Your task to perform on an android device: open a new tab in the chrome app Image 0: 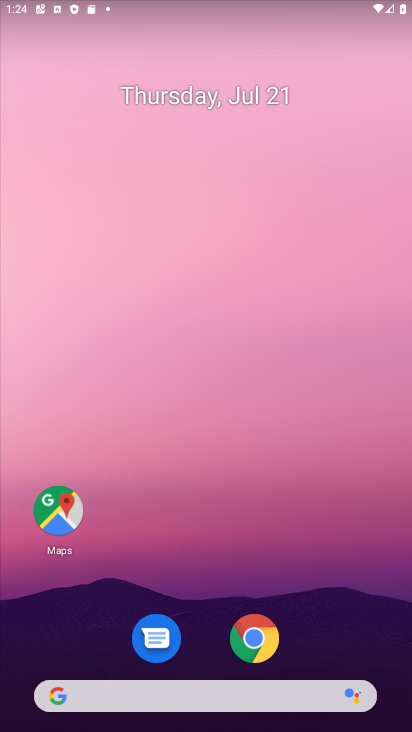
Step 0: click (235, 636)
Your task to perform on an android device: open a new tab in the chrome app Image 1: 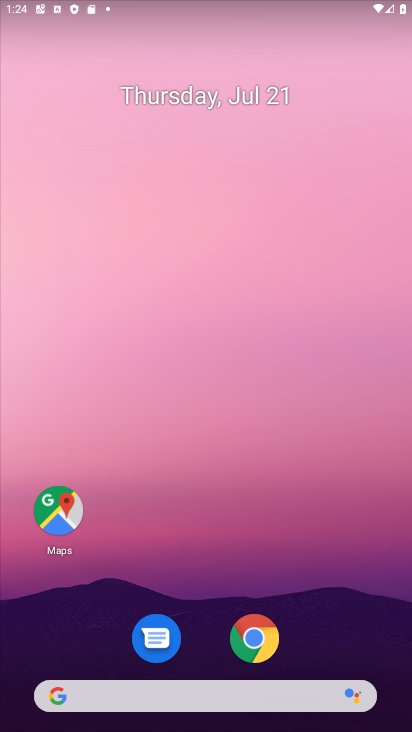
Step 1: click (235, 636)
Your task to perform on an android device: open a new tab in the chrome app Image 2: 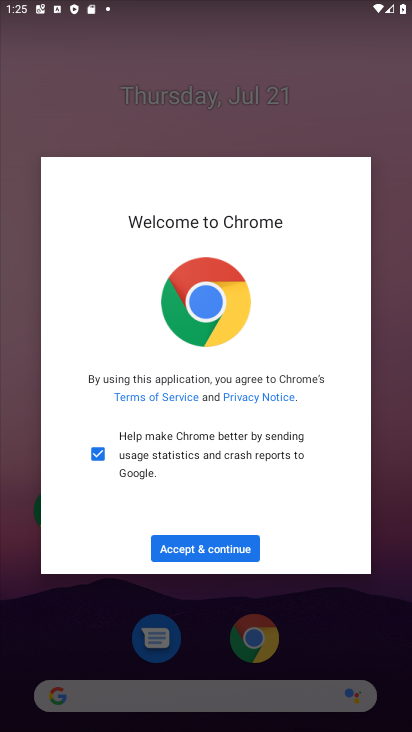
Step 2: click (196, 551)
Your task to perform on an android device: open a new tab in the chrome app Image 3: 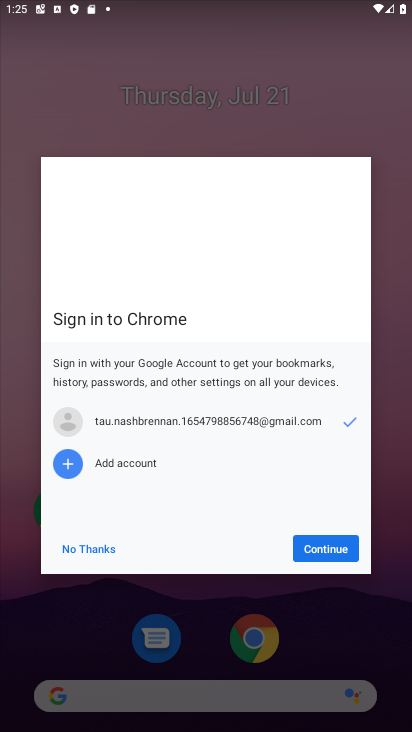
Step 3: click (321, 555)
Your task to perform on an android device: open a new tab in the chrome app Image 4: 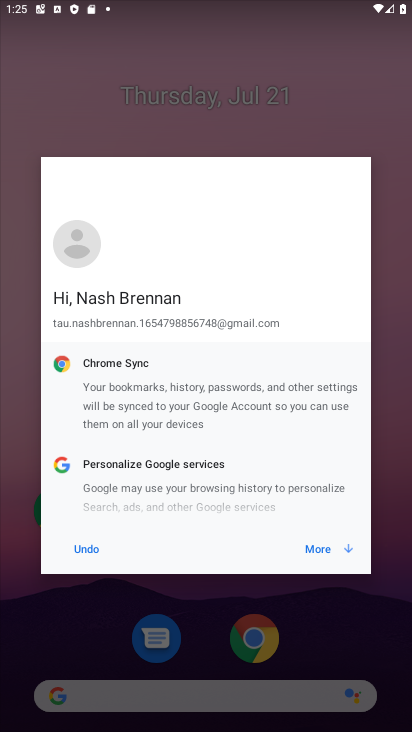
Step 4: click (321, 551)
Your task to perform on an android device: open a new tab in the chrome app Image 5: 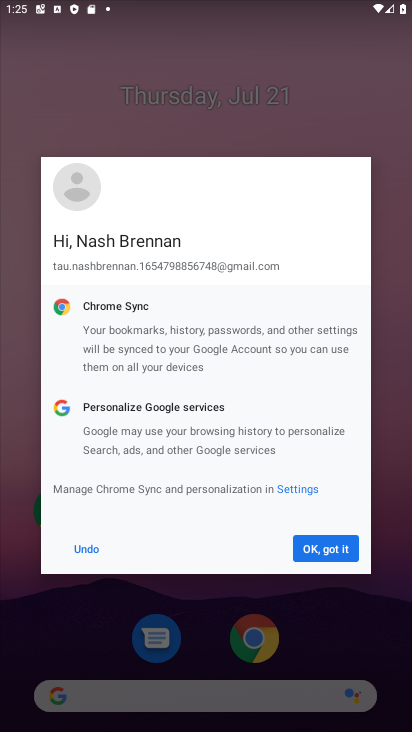
Step 5: click (317, 550)
Your task to perform on an android device: open a new tab in the chrome app Image 6: 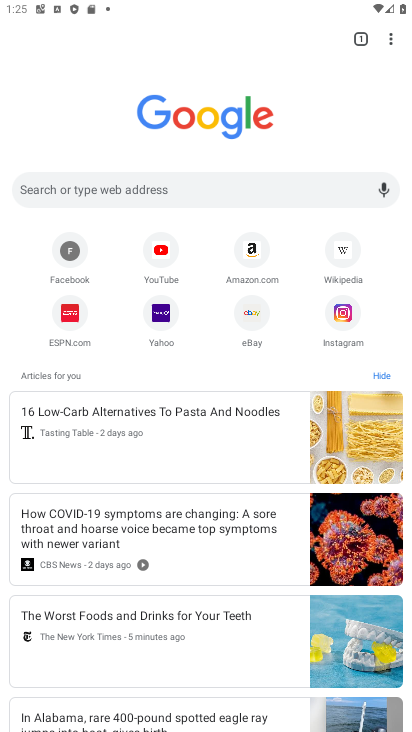
Step 6: click (389, 36)
Your task to perform on an android device: open a new tab in the chrome app Image 7: 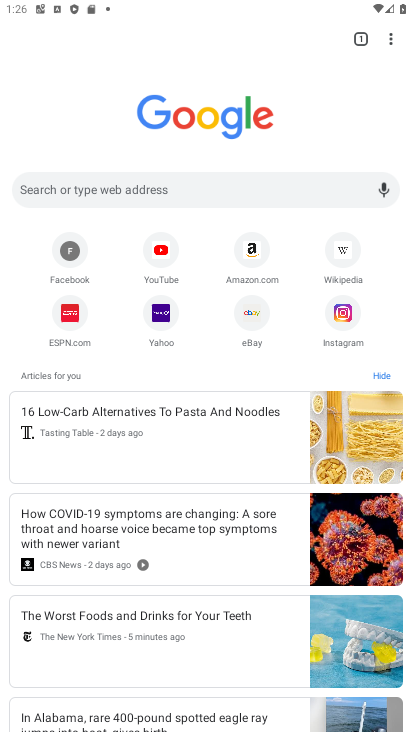
Step 7: click (389, 35)
Your task to perform on an android device: open a new tab in the chrome app Image 8: 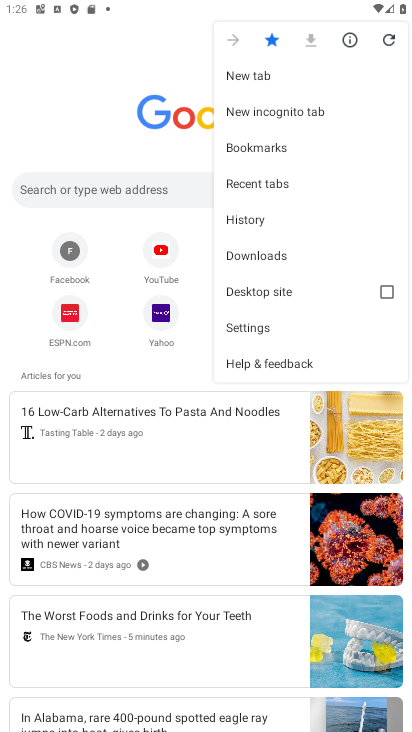
Step 8: click (289, 73)
Your task to perform on an android device: open a new tab in the chrome app Image 9: 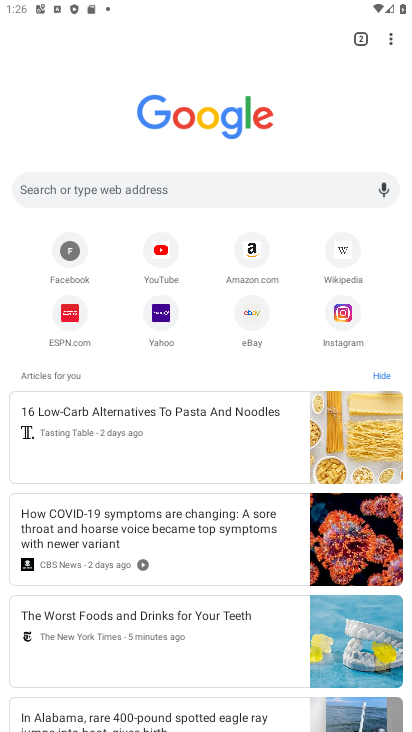
Step 9: task complete